Your task to perform on an android device: turn on showing notifications on the lock screen Image 0: 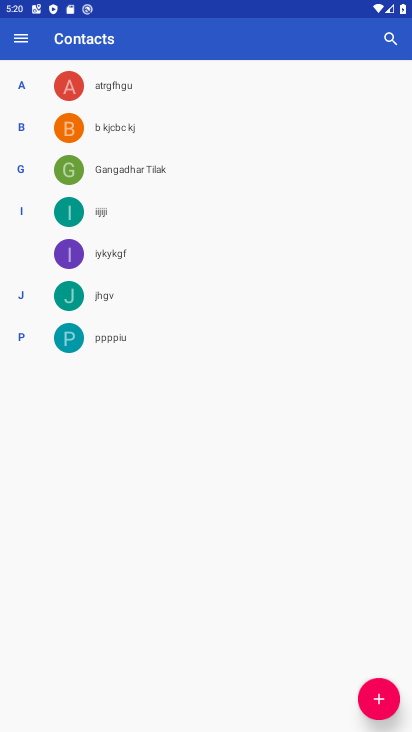
Step 0: press home button
Your task to perform on an android device: turn on showing notifications on the lock screen Image 1: 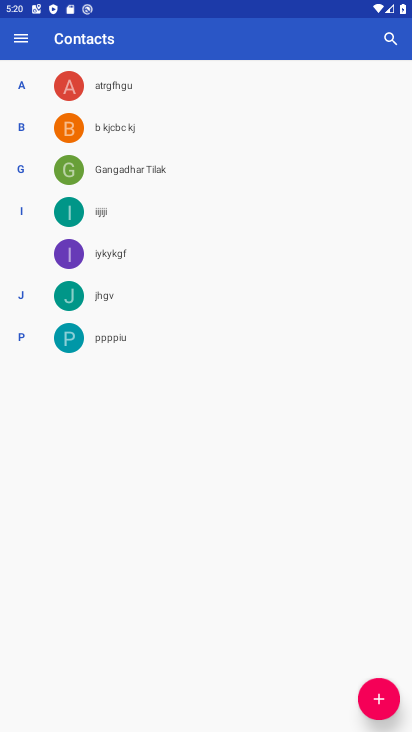
Step 1: press home button
Your task to perform on an android device: turn on showing notifications on the lock screen Image 2: 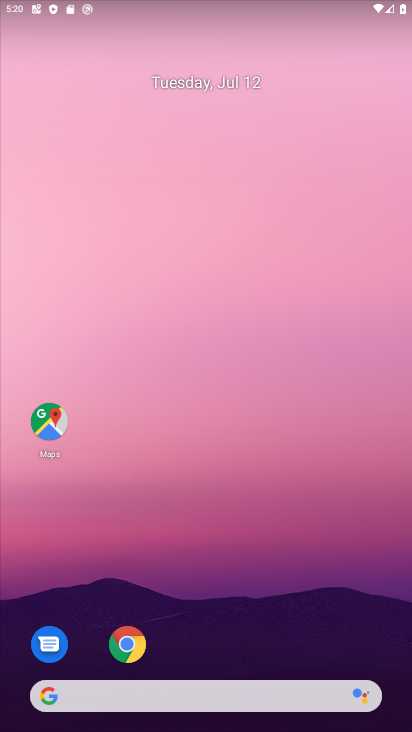
Step 2: drag from (296, 663) to (284, 71)
Your task to perform on an android device: turn on showing notifications on the lock screen Image 3: 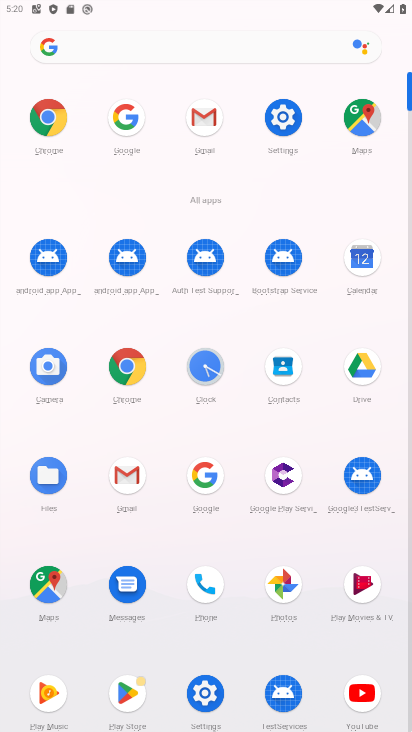
Step 3: click (278, 112)
Your task to perform on an android device: turn on showing notifications on the lock screen Image 4: 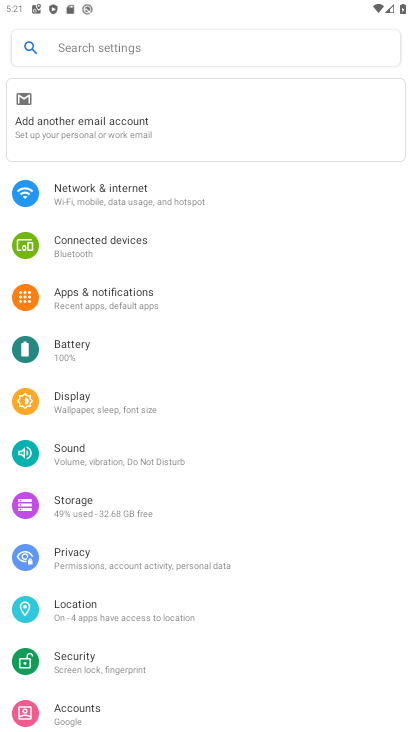
Step 4: click (89, 297)
Your task to perform on an android device: turn on showing notifications on the lock screen Image 5: 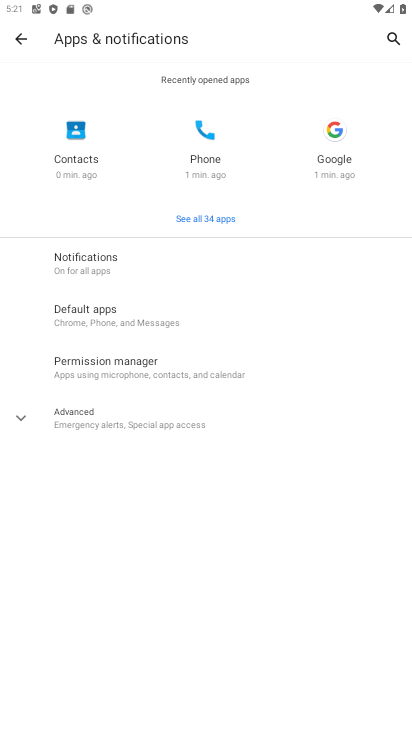
Step 5: click (71, 268)
Your task to perform on an android device: turn on showing notifications on the lock screen Image 6: 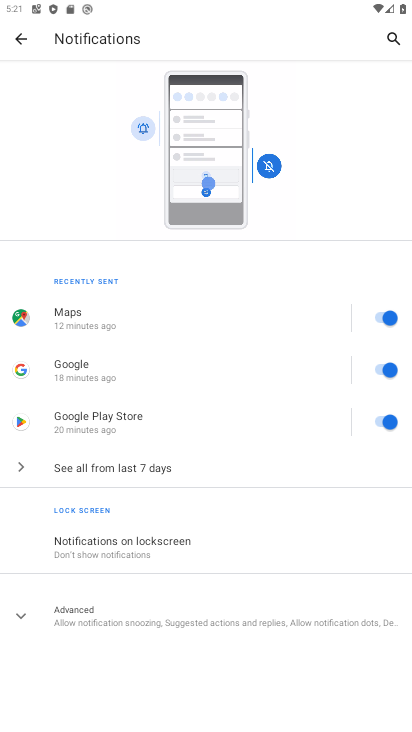
Step 6: click (83, 542)
Your task to perform on an android device: turn on showing notifications on the lock screen Image 7: 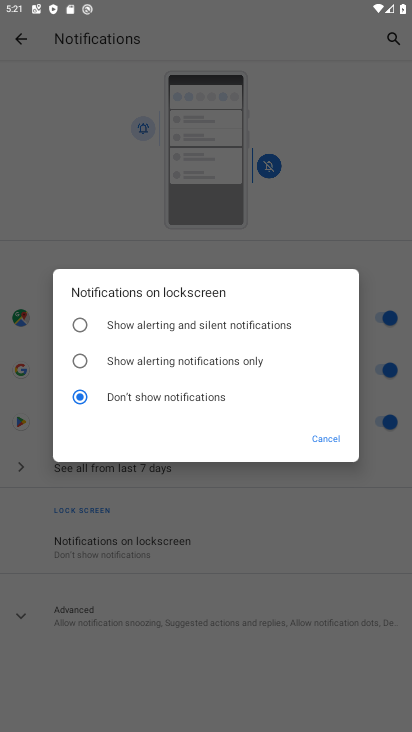
Step 7: click (119, 362)
Your task to perform on an android device: turn on showing notifications on the lock screen Image 8: 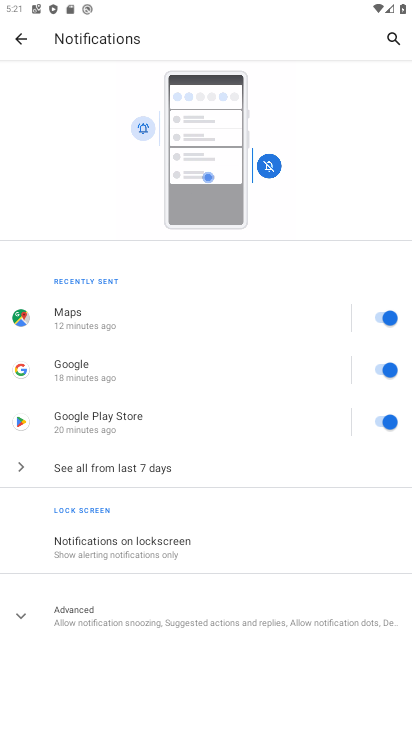
Step 8: task complete